Your task to perform on an android device: add a label to a message in the gmail app Image 0: 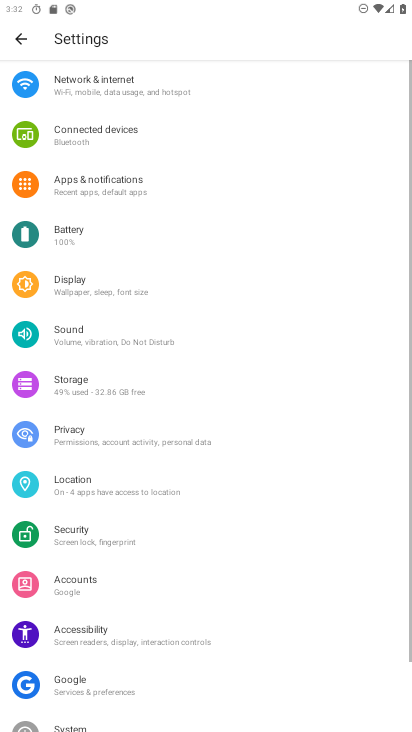
Step 0: press home button
Your task to perform on an android device: add a label to a message in the gmail app Image 1: 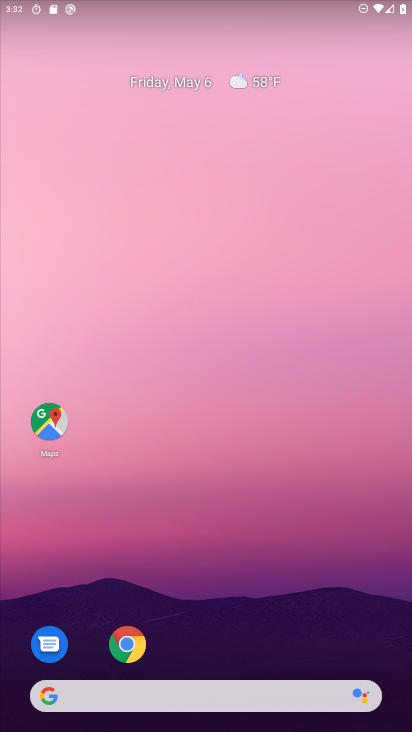
Step 1: drag from (221, 728) to (230, 254)
Your task to perform on an android device: add a label to a message in the gmail app Image 2: 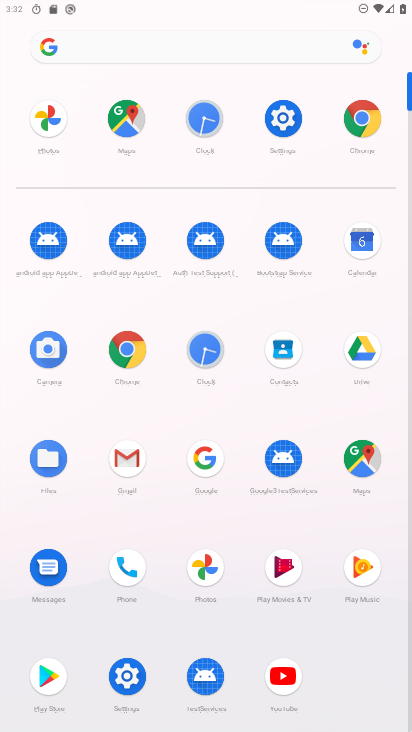
Step 2: click (129, 454)
Your task to perform on an android device: add a label to a message in the gmail app Image 3: 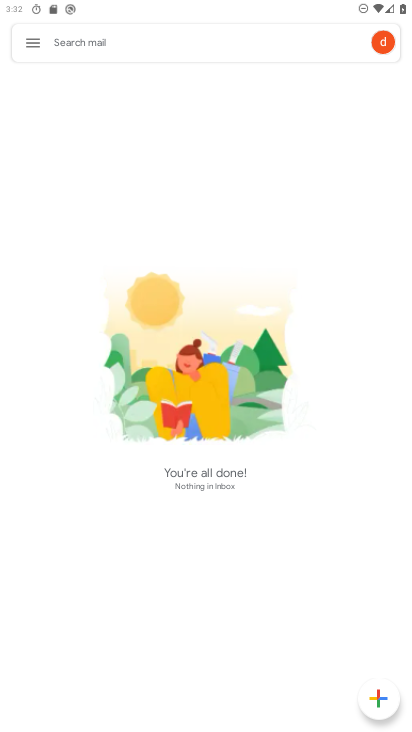
Step 3: click (36, 48)
Your task to perform on an android device: add a label to a message in the gmail app Image 4: 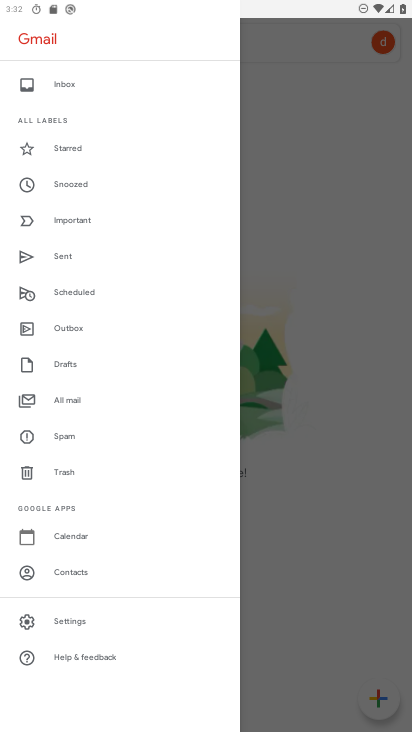
Step 4: click (70, 84)
Your task to perform on an android device: add a label to a message in the gmail app Image 5: 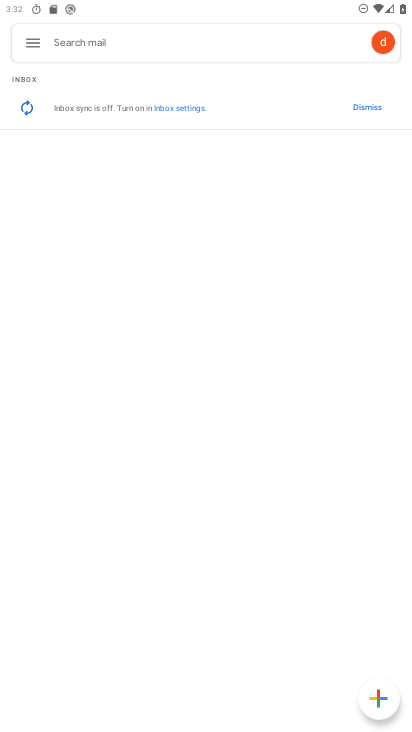
Step 5: task complete